Your task to perform on an android device: star an email in the gmail app Image 0: 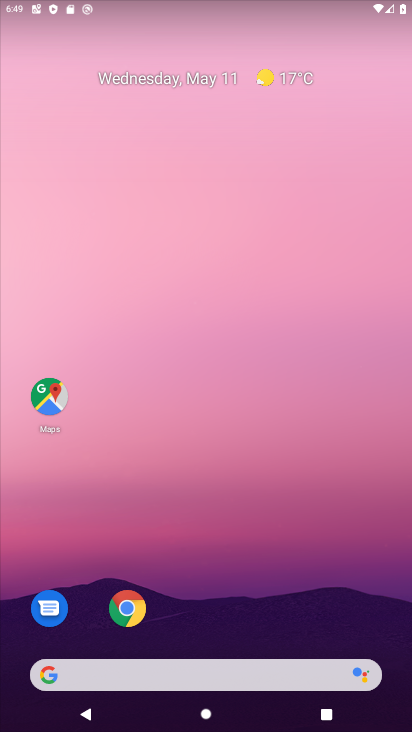
Step 0: click (249, 278)
Your task to perform on an android device: star an email in the gmail app Image 1: 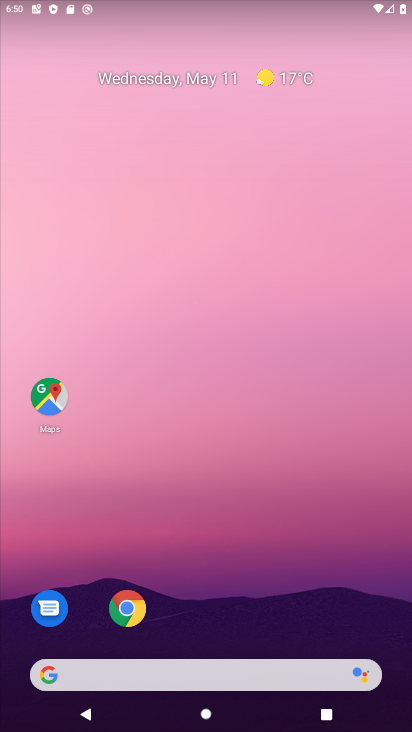
Step 1: drag from (235, 615) to (253, 6)
Your task to perform on an android device: star an email in the gmail app Image 2: 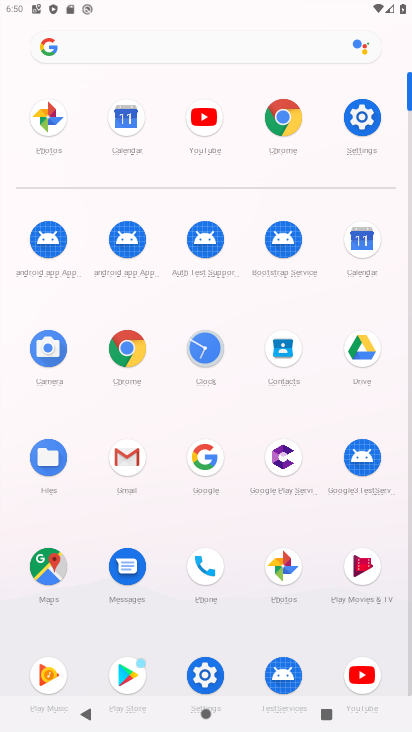
Step 2: click (117, 471)
Your task to perform on an android device: star an email in the gmail app Image 3: 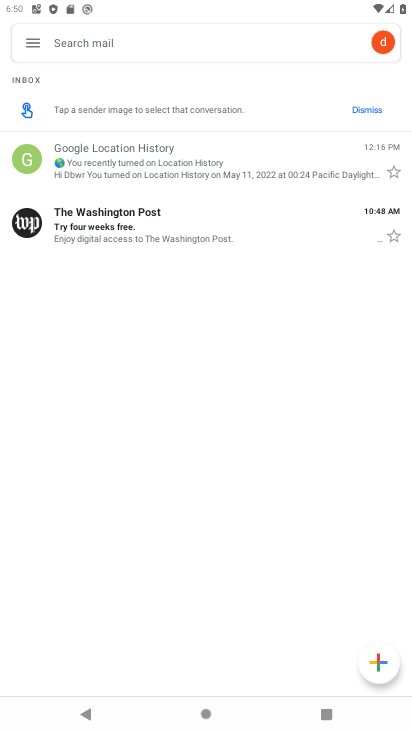
Step 3: click (389, 169)
Your task to perform on an android device: star an email in the gmail app Image 4: 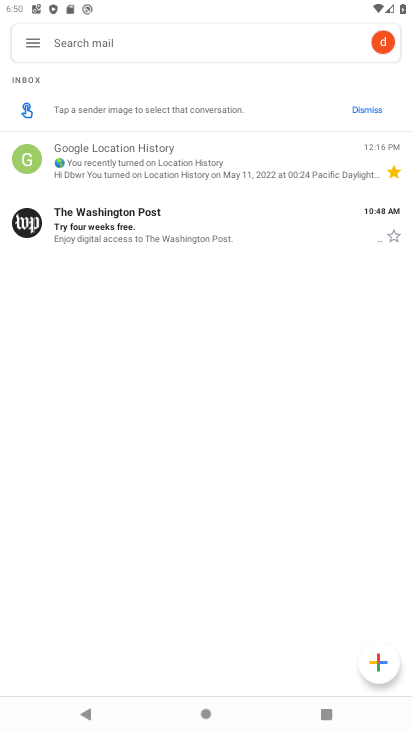
Step 4: task complete